Your task to perform on an android device: Set the phone to "Do not disturb". Image 0: 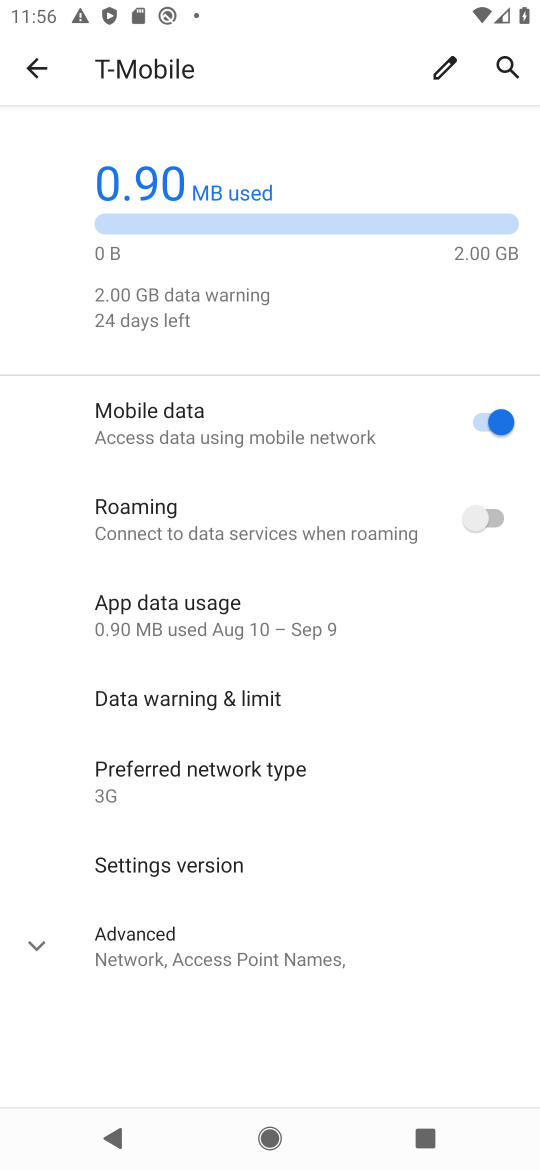
Step 0: drag from (216, 12) to (234, 867)
Your task to perform on an android device: Set the phone to "Do not disturb". Image 1: 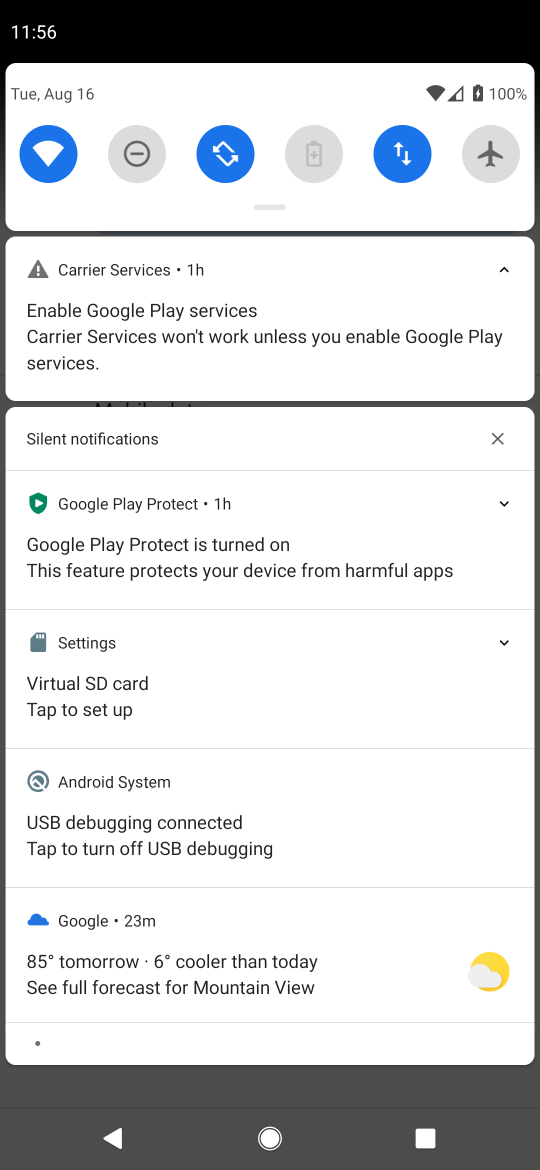
Step 1: click (134, 169)
Your task to perform on an android device: Set the phone to "Do not disturb". Image 2: 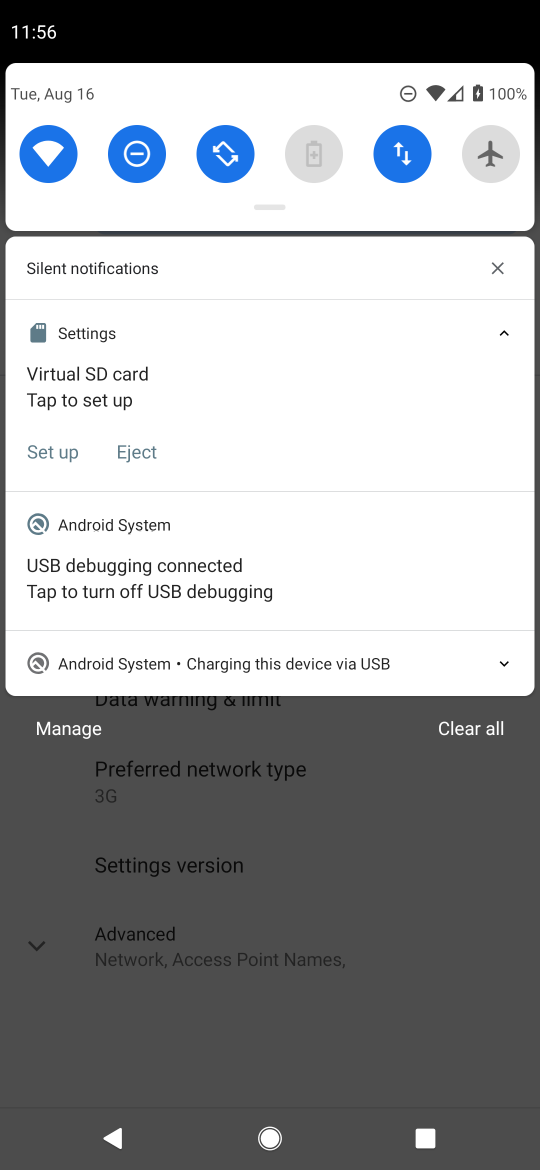
Step 2: task complete